Your task to perform on an android device: Show me recent news Image 0: 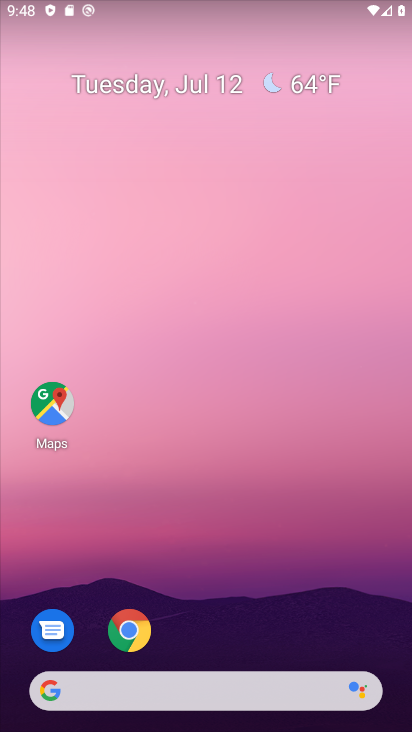
Step 0: drag from (311, 666) to (289, 89)
Your task to perform on an android device: Show me recent news Image 1: 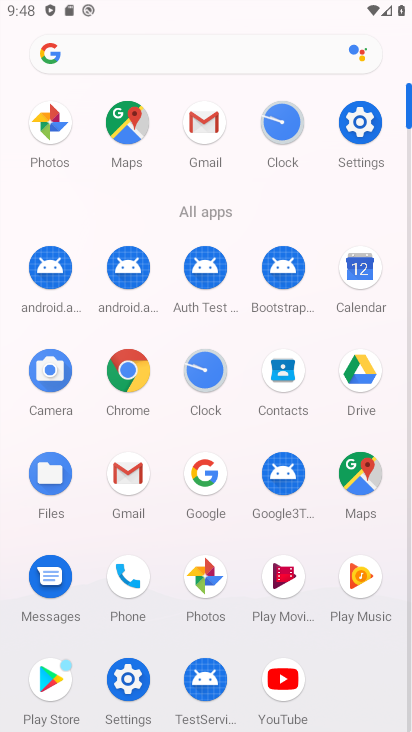
Step 1: click (115, 370)
Your task to perform on an android device: Show me recent news Image 2: 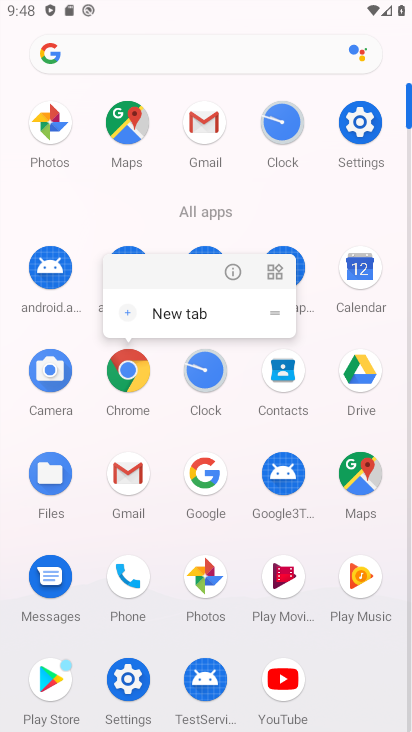
Step 2: click (115, 370)
Your task to perform on an android device: Show me recent news Image 3: 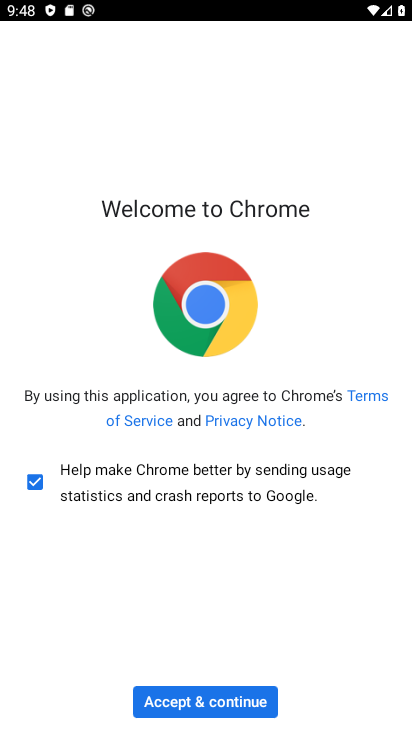
Step 3: click (231, 701)
Your task to perform on an android device: Show me recent news Image 4: 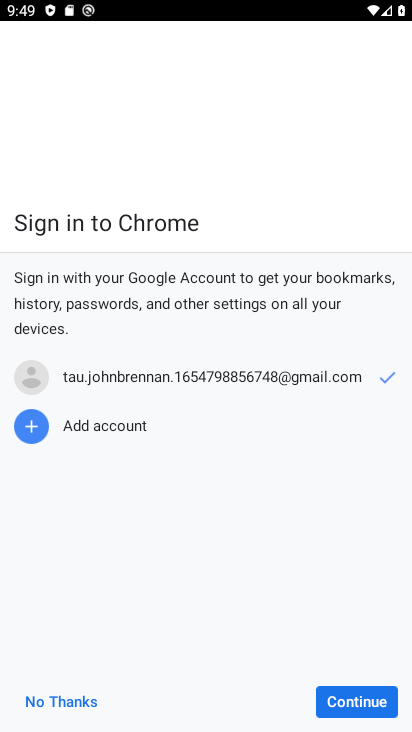
Step 4: click (71, 699)
Your task to perform on an android device: Show me recent news Image 5: 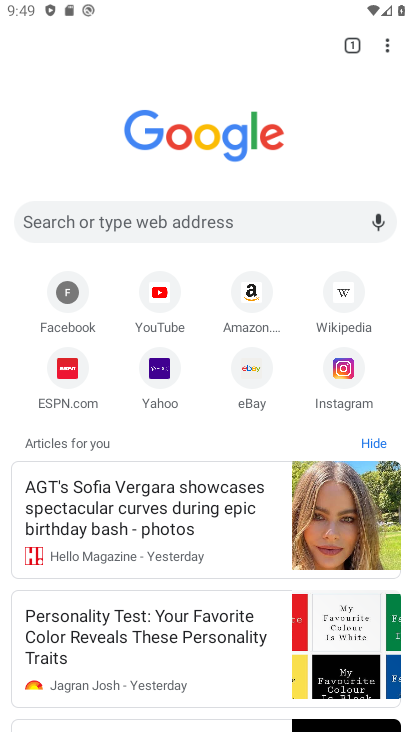
Step 5: task complete